Your task to perform on an android device: What is the recent news? Image 0: 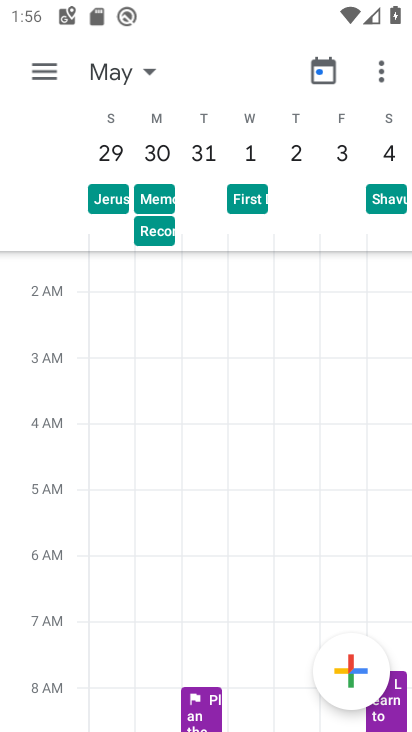
Step 0: press home button
Your task to perform on an android device: What is the recent news? Image 1: 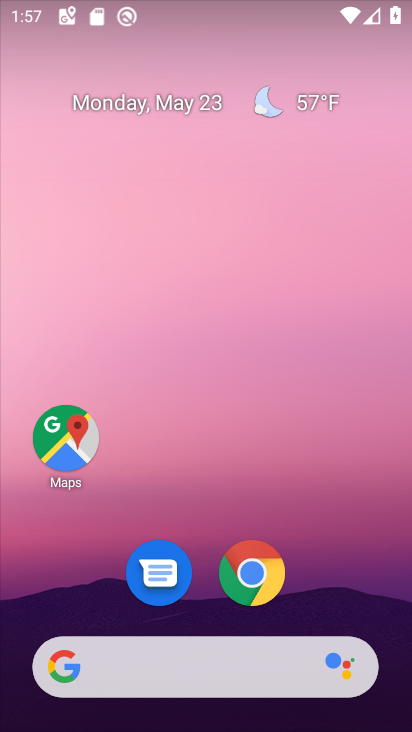
Step 1: click (186, 646)
Your task to perform on an android device: What is the recent news? Image 2: 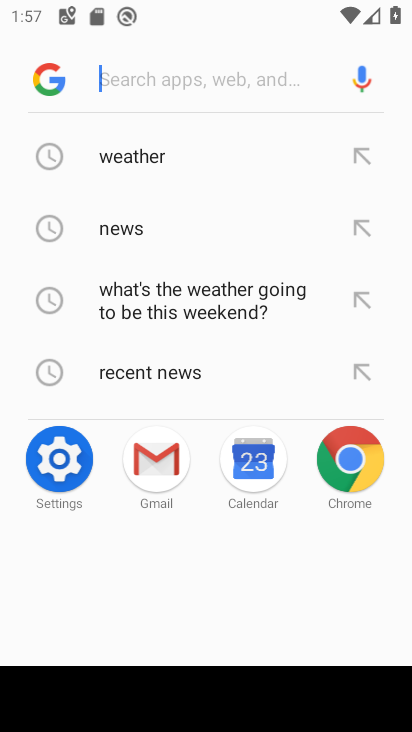
Step 2: click (150, 365)
Your task to perform on an android device: What is the recent news? Image 3: 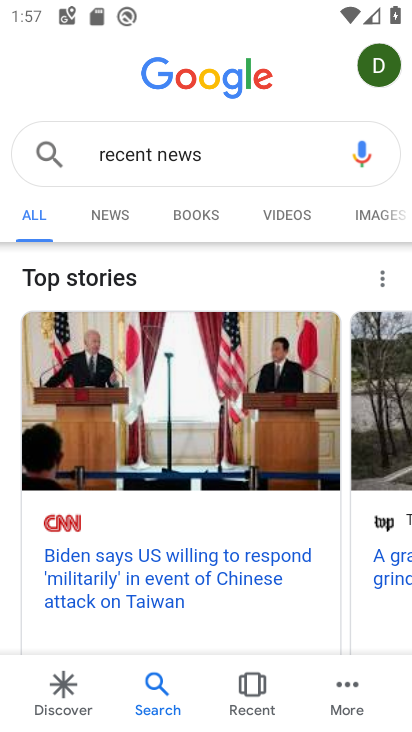
Step 3: task complete